Your task to perform on an android device: Search for seafood restaurants on Google Maps Image 0: 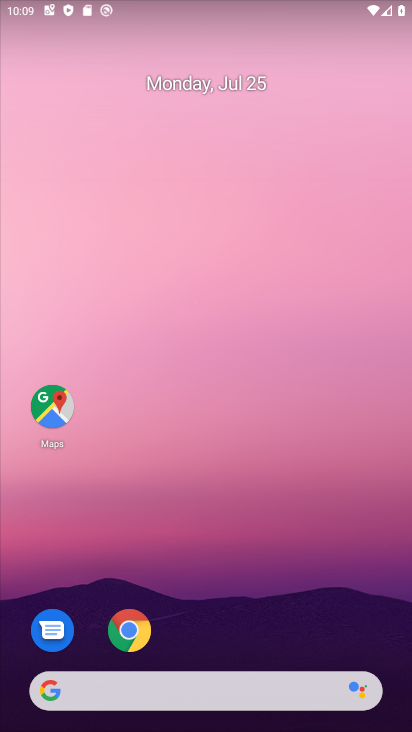
Step 0: press home button
Your task to perform on an android device: Search for seafood restaurants on Google Maps Image 1: 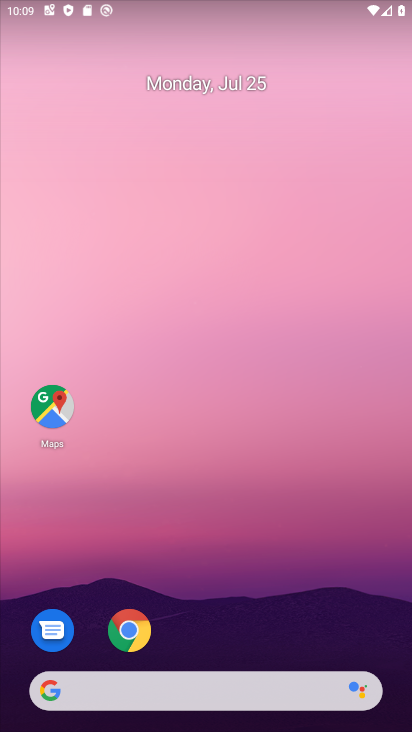
Step 1: drag from (356, 599) to (375, 137)
Your task to perform on an android device: Search for seafood restaurants on Google Maps Image 2: 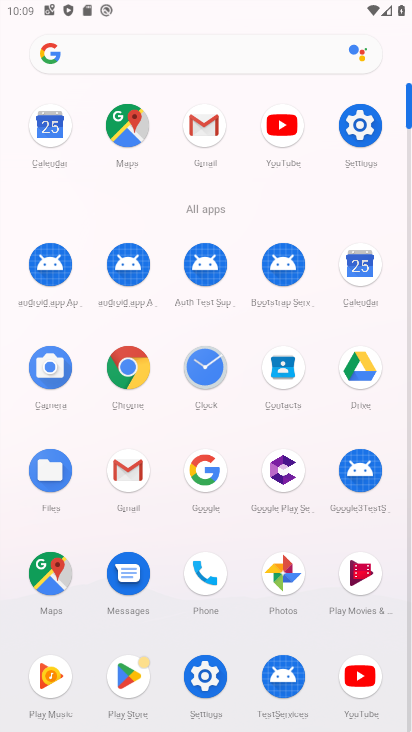
Step 2: click (47, 572)
Your task to perform on an android device: Search for seafood restaurants on Google Maps Image 3: 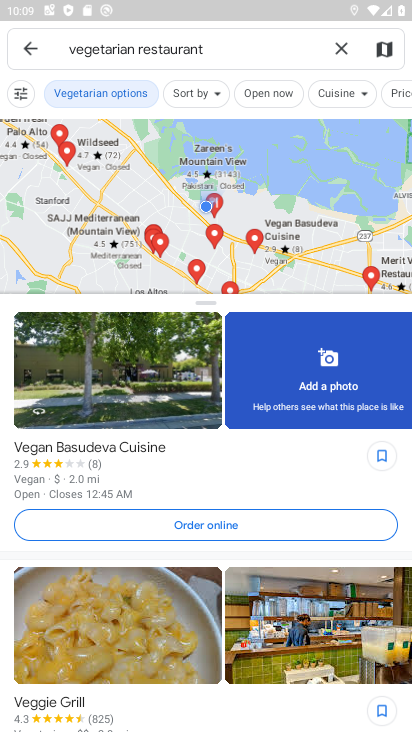
Step 3: press back button
Your task to perform on an android device: Search for seafood restaurants on Google Maps Image 4: 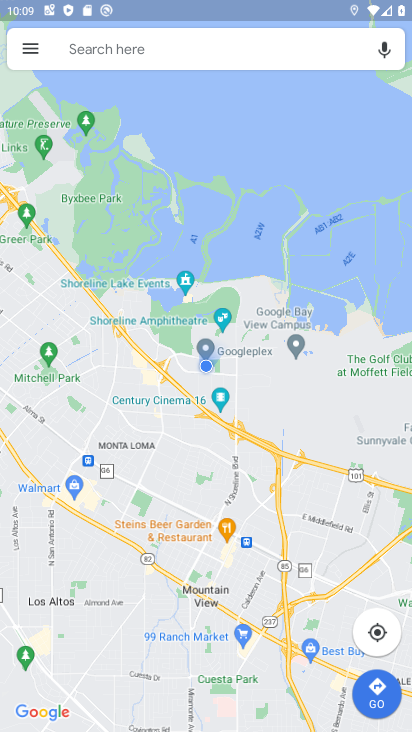
Step 4: click (295, 49)
Your task to perform on an android device: Search for seafood restaurants on Google Maps Image 5: 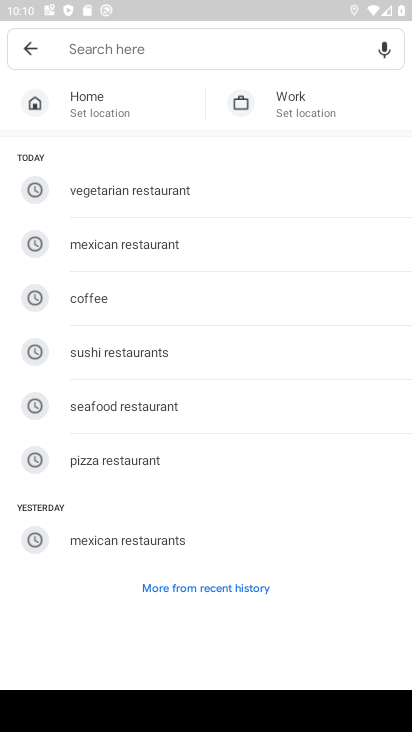
Step 5: type "seafood restaurants"
Your task to perform on an android device: Search for seafood restaurants on Google Maps Image 6: 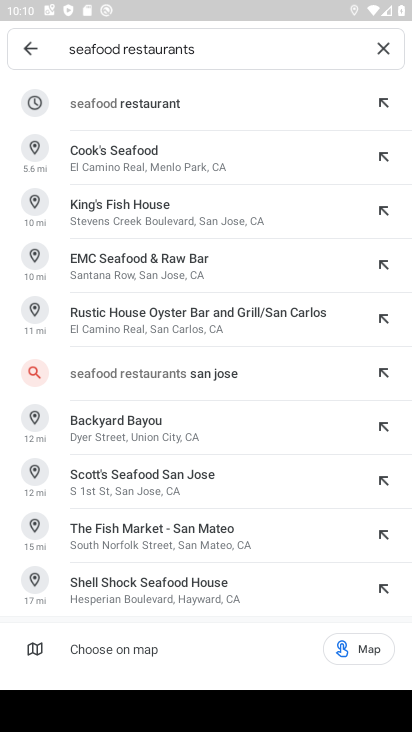
Step 6: click (264, 107)
Your task to perform on an android device: Search for seafood restaurants on Google Maps Image 7: 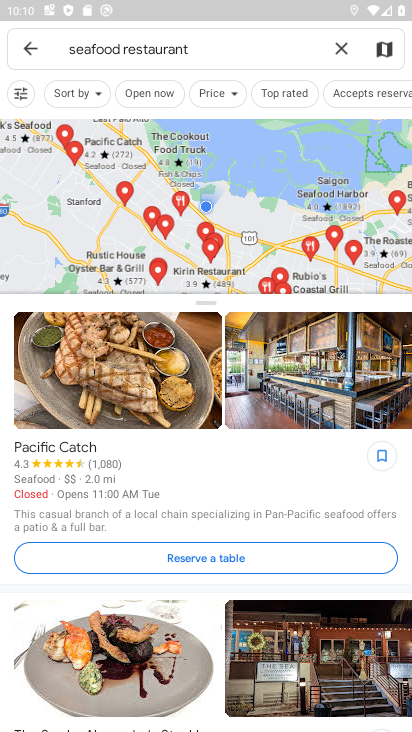
Step 7: task complete